Your task to perform on an android device: turn smart compose on in the gmail app Image 0: 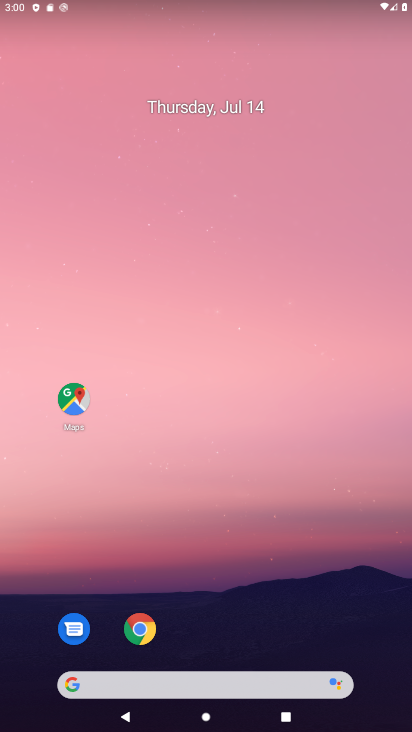
Step 0: drag from (243, 573) to (223, 191)
Your task to perform on an android device: turn smart compose on in the gmail app Image 1: 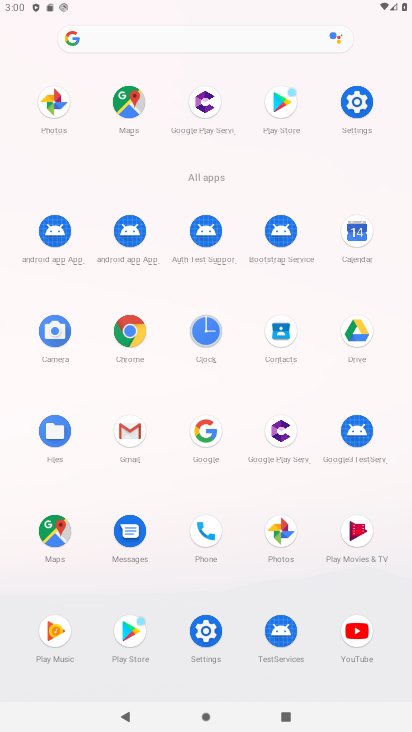
Step 1: click (139, 420)
Your task to perform on an android device: turn smart compose on in the gmail app Image 2: 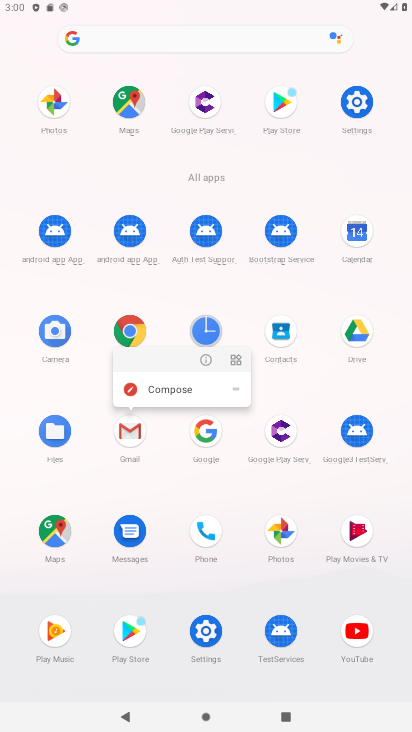
Step 2: click (121, 434)
Your task to perform on an android device: turn smart compose on in the gmail app Image 3: 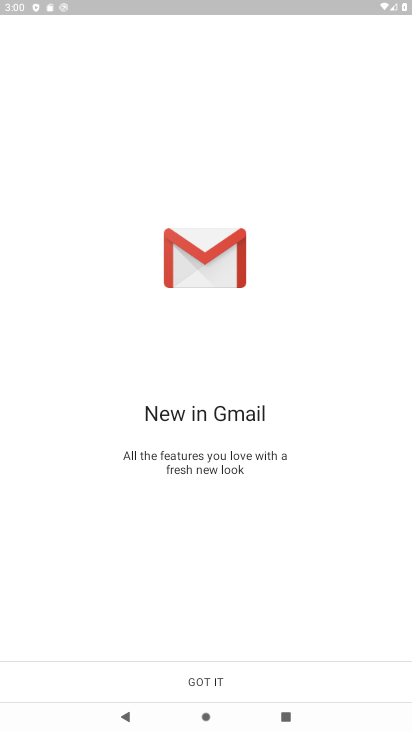
Step 3: click (214, 672)
Your task to perform on an android device: turn smart compose on in the gmail app Image 4: 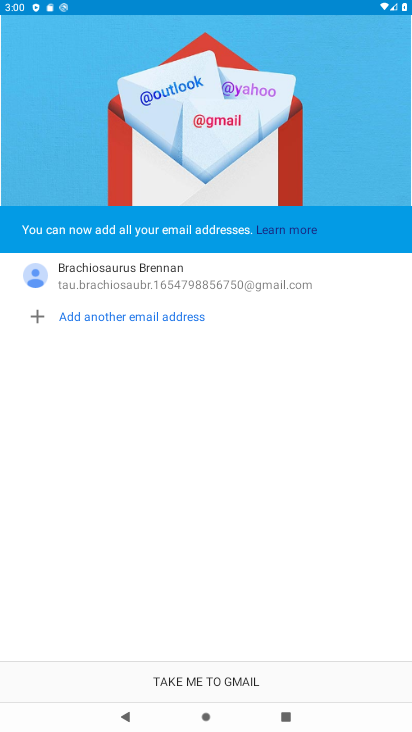
Step 4: click (212, 682)
Your task to perform on an android device: turn smart compose on in the gmail app Image 5: 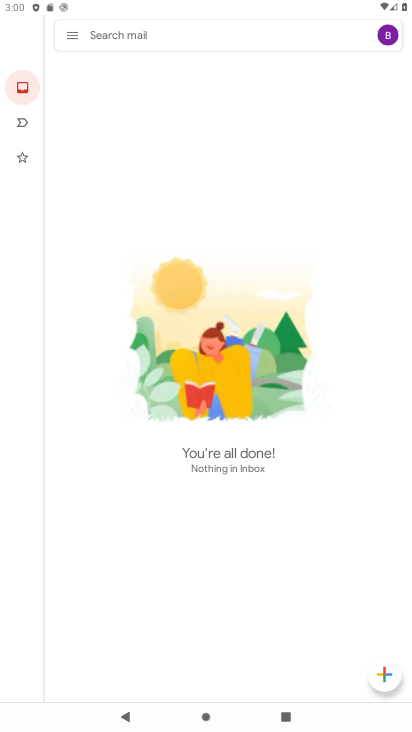
Step 5: click (83, 31)
Your task to perform on an android device: turn smart compose on in the gmail app Image 6: 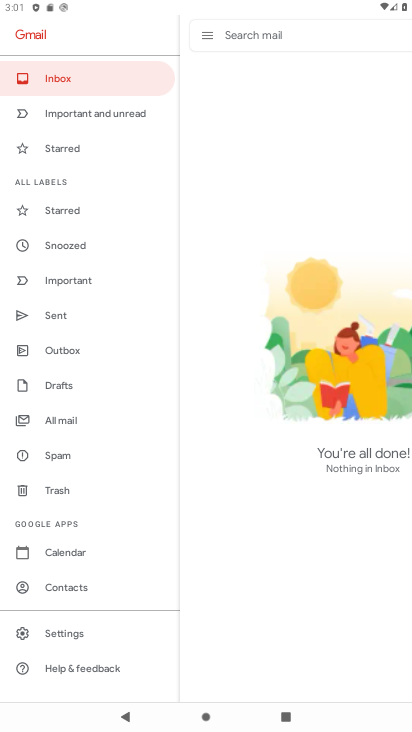
Step 6: click (78, 634)
Your task to perform on an android device: turn smart compose on in the gmail app Image 7: 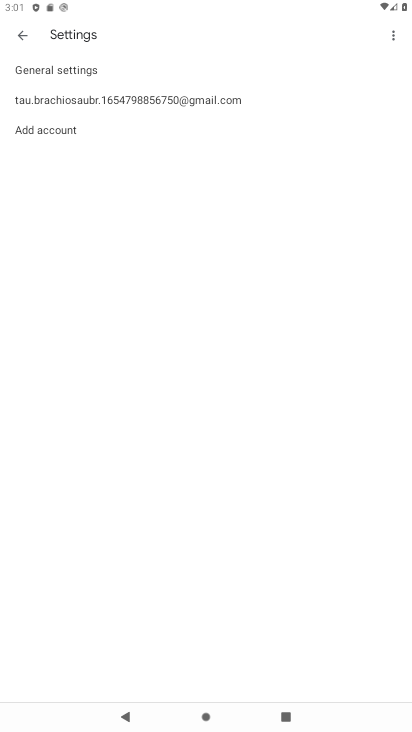
Step 7: click (97, 101)
Your task to perform on an android device: turn smart compose on in the gmail app Image 8: 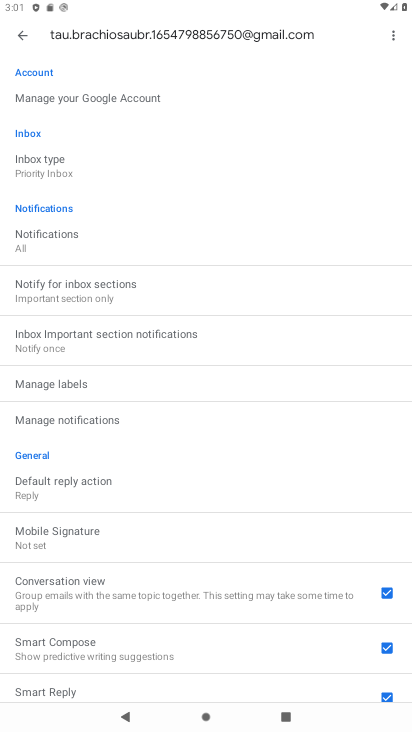
Step 8: task complete